Your task to perform on an android device: Open Google Image 0: 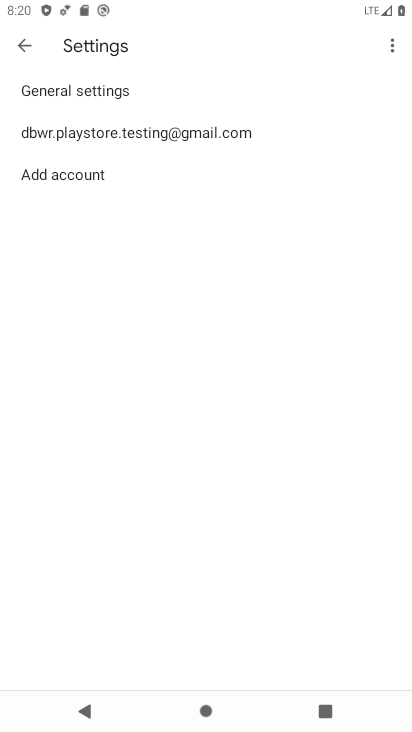
Step 0: press home button
Your task to perform on an android device: Open Google Image 1: 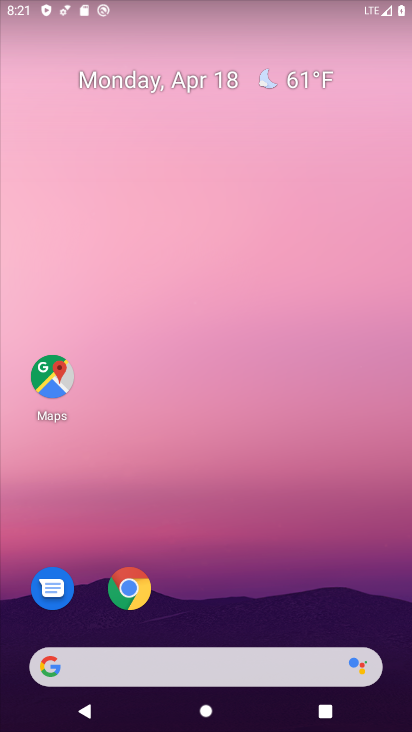
Step 1: click (127, 585)
Your task to perform on an android device: Open Google Image 2: 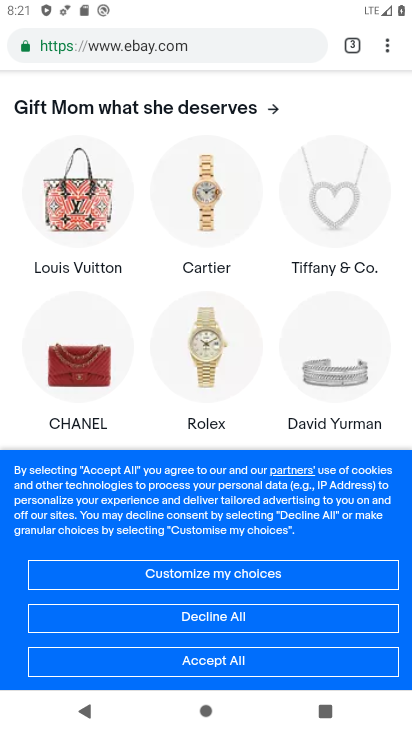
Step 2: task complete